Your task to perform on an android device: Show me popular videos on Youtube Image 0: 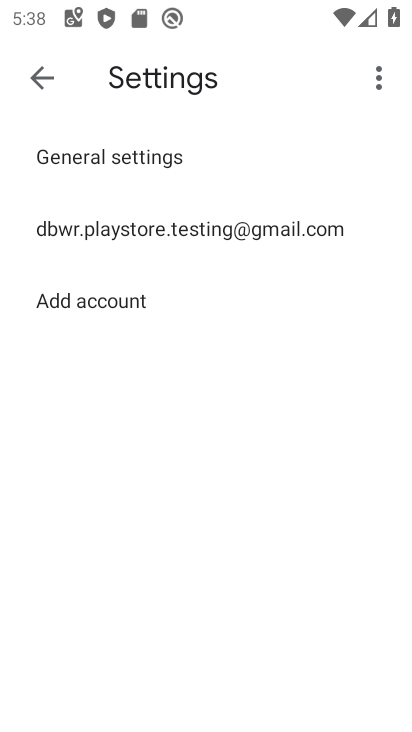
Step 0: press home button
Your task to perform on an android device: Show me popular videos on Youtube Image 1: 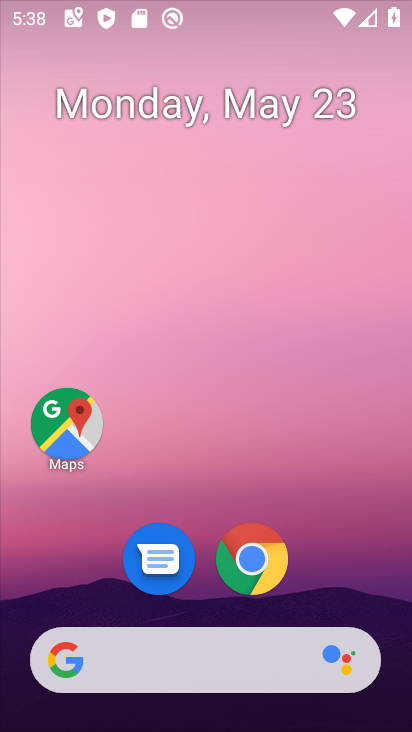
Step 1: drag from (265, 671) to (283, 29)
Your task to perform on an android device: Show me popular videos on Youtube Image 2: 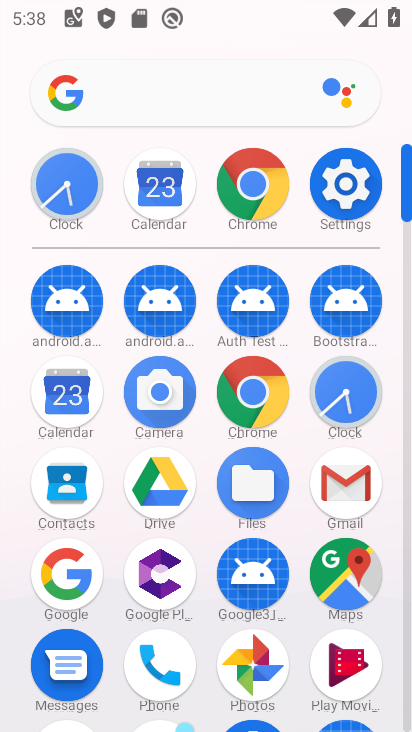
Step 2: drag from (280, 607) to (232, 108)
Your task to perform on an android device: Show me popular videos on Youtube Image 3: 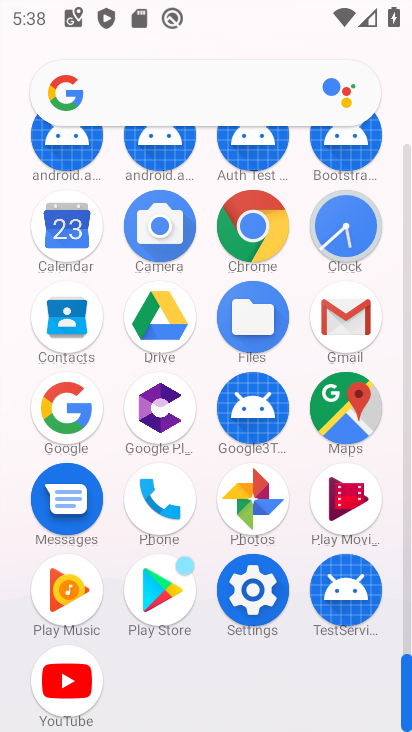
Step 3: click (87, 673)
Your task to perform on an android device: Show me popular videos on Youtube Image 4: 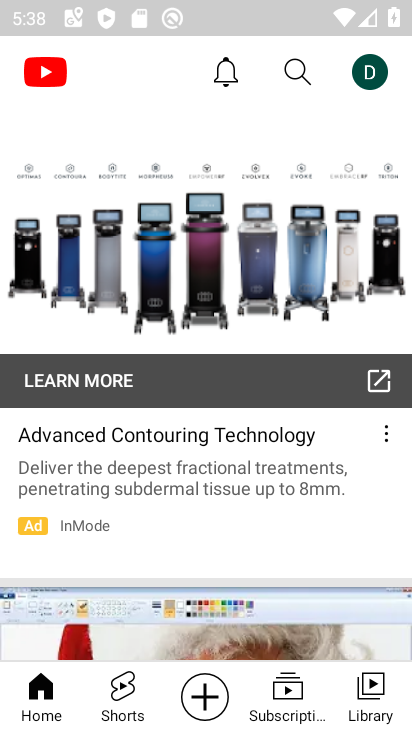
Step 4: click (360, 687)
Your task to perform on an android device: Show me popular videos on Youtube Image 5: 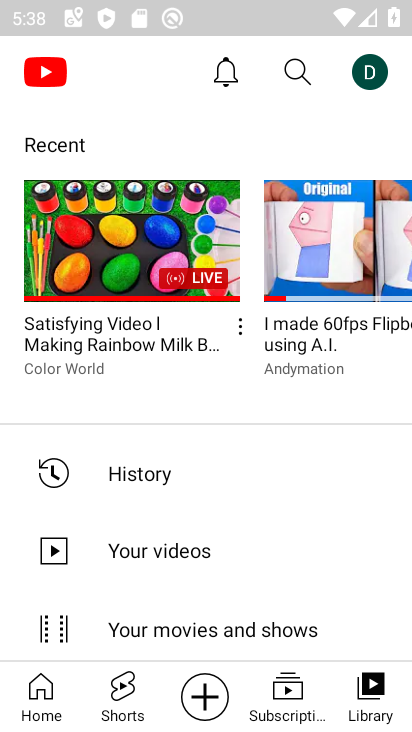
Step 5: drag from (333, 614) to (190, 718)
Your task to perform on an android device: Show me popular videos on Youtube Image 6: 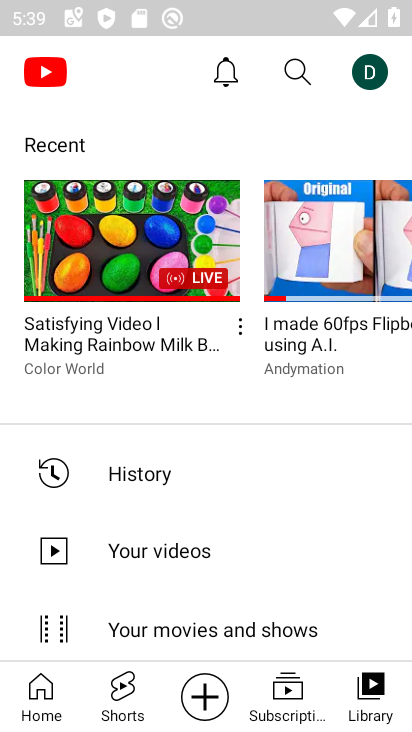
Step 6: click (59, 702)
Your task to perform on an android device: Show me popular videos on Youtube Image 7: 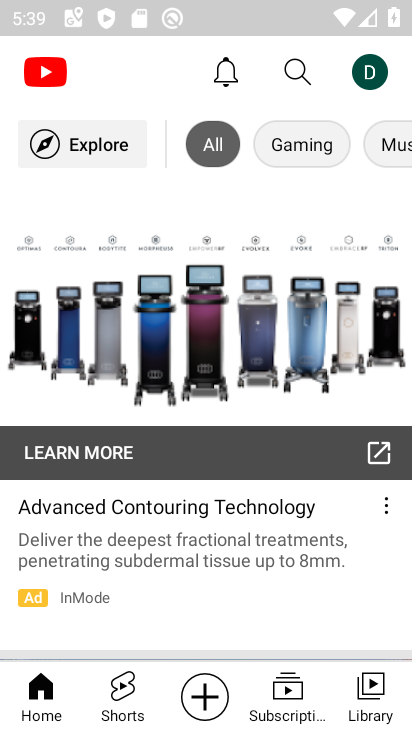
Step 7: task complete